Your task to perform on an android device: move a message to another label in the gmail app Image 0: 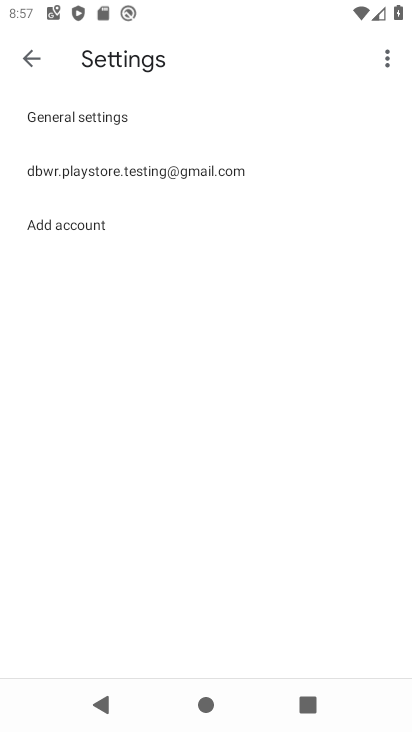
Step 0: press home button
Your task to perform on an android device: move a message to another label in the gmail app Image 1: 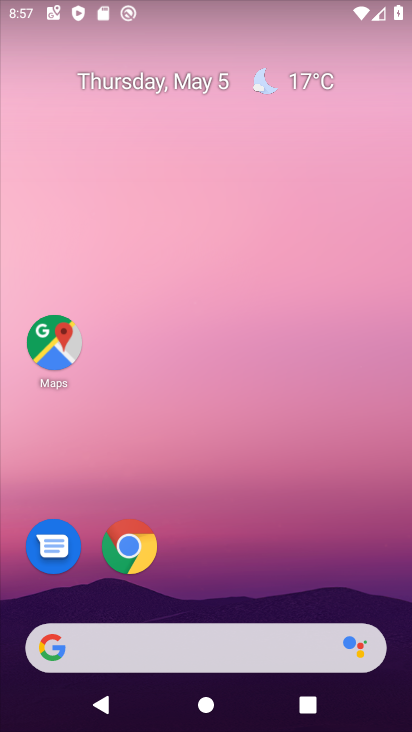
Step 1: drag from (169, 639) to (301, 178)
Your task to perform on an android device: move a message to another label in the gmail app Image 2: 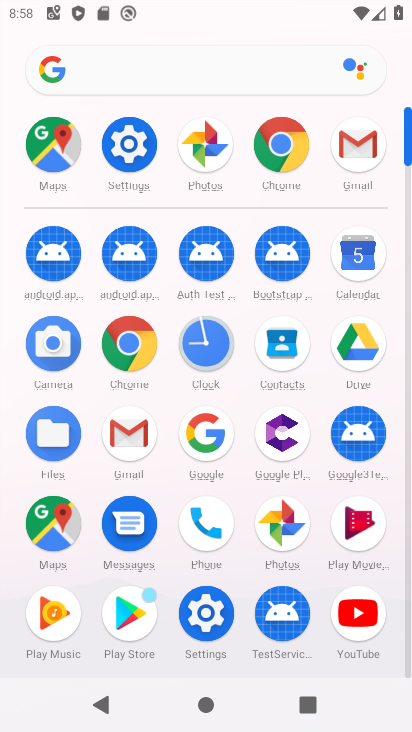
Step 2: click (358, 151)
Your task to perform on an android device: move a message to another label in the gmail app Image 3: 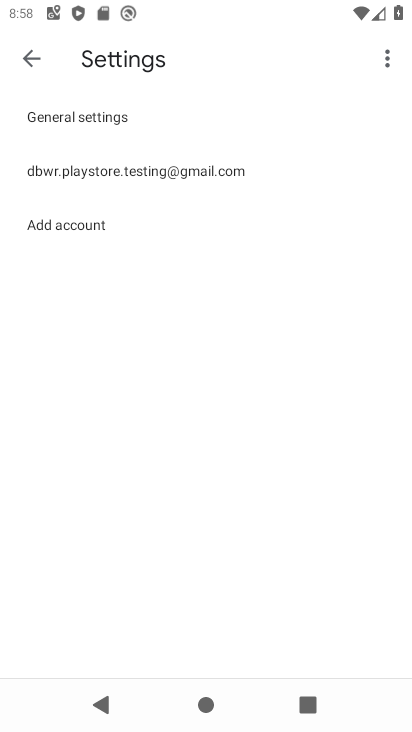
Step 3: click (32, 51)
Your task to perform on an android device: move a message to another label in the gmail app Image 4: 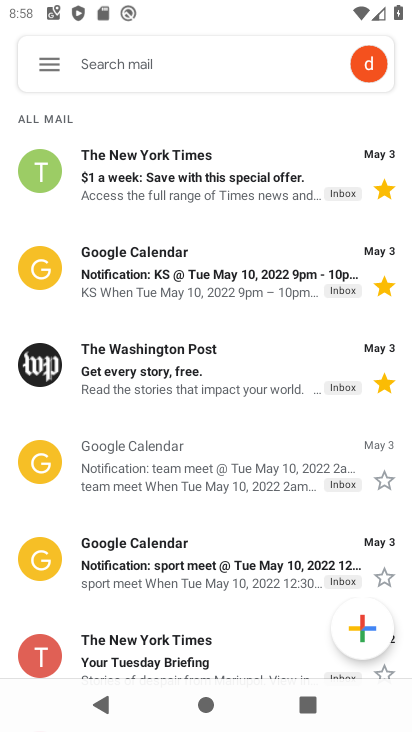
Step 4: drag from (168, 648) to (258, 254)
Your task to perform on an android device: move a message to another label in the gmail app Image 5: 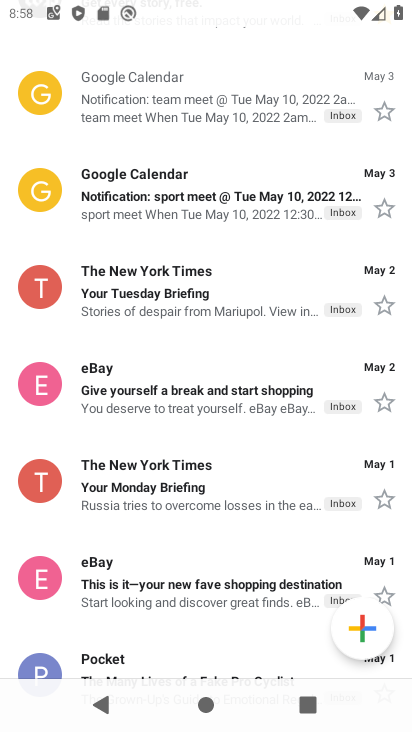
Step 5: click (48, 285)
Your task to perform on an android device: move a message to another label in the gmail app Image 6: 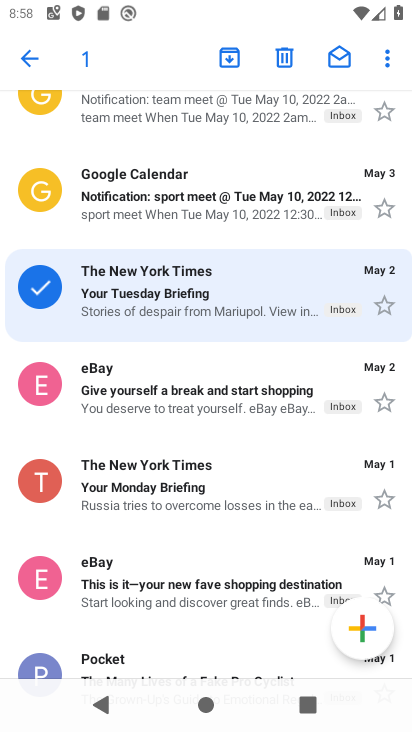
Step 6: click (386, 55)
Your task to perform on an android device: move a message to another label in the gmail app Image 7: 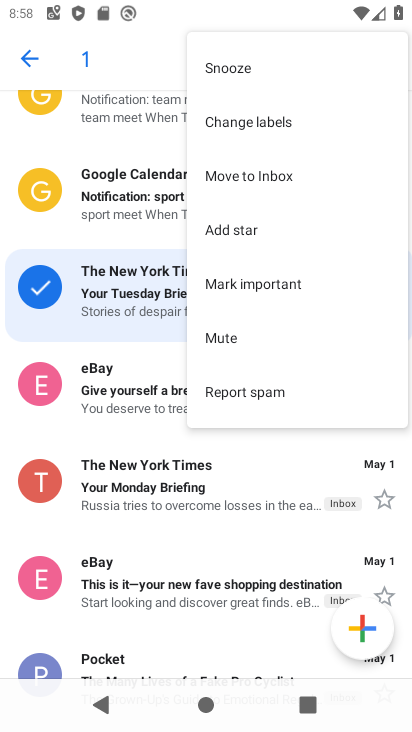
Step 7: click (276, 119)
Your task to perform on an android device: move a message to another label in the gmail app Image 8: 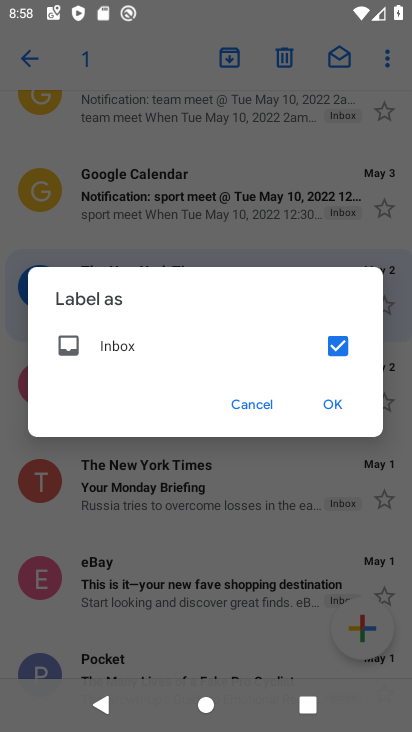
Step 8: click (339, 350)
Your task to perform on an android device: move a message to another label in the gmail app Image 9: 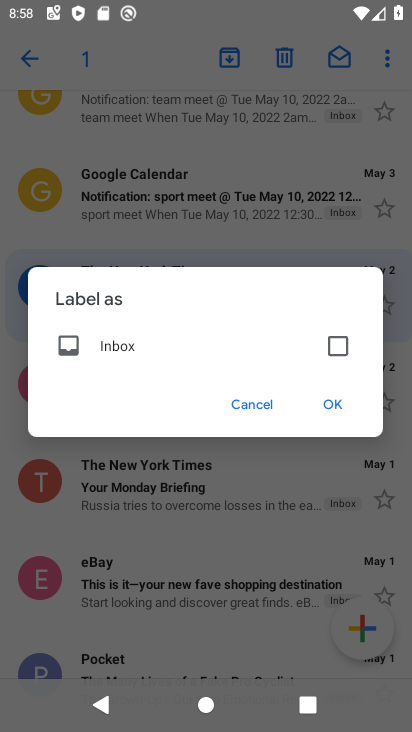
Step 9: click (337, 409)
Your task to perform on an android device: move a message to another label in the gmail app Image 10: 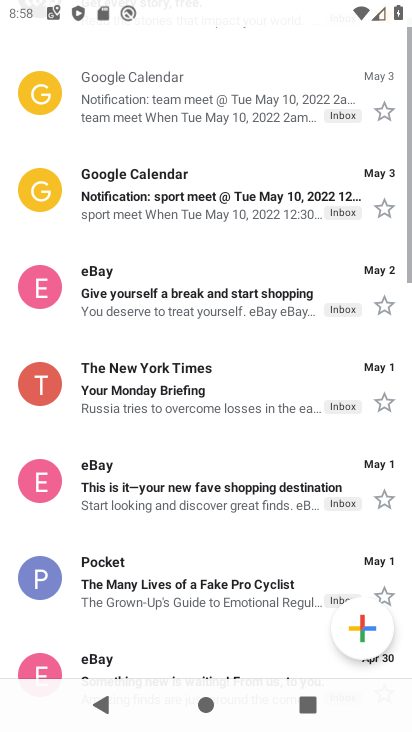
Step 10: task complete